Your task to perform on an android device: empty trash in the gmail app Image 0: 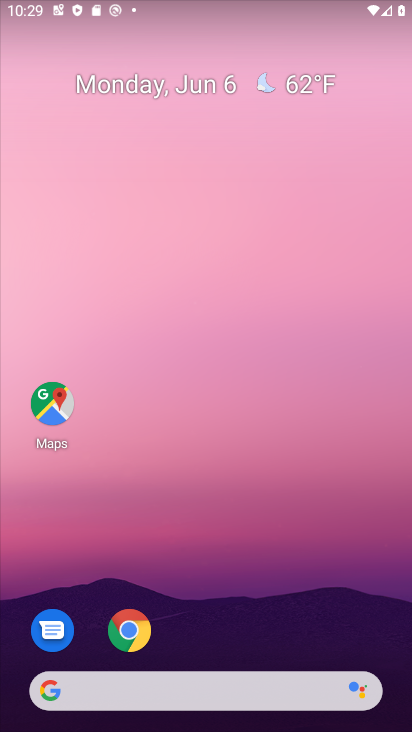
Step 0: drag from (331, 627) to (337, 170)
Your task to perform on an android device: empty trash in the gmail app Image 1: 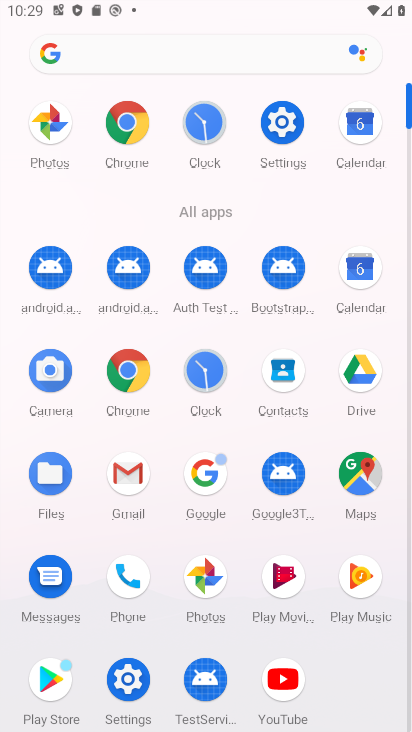
Step 1: click (143, 465)
Your task to perform on an android device: empty trash in the gmail app Image 2: 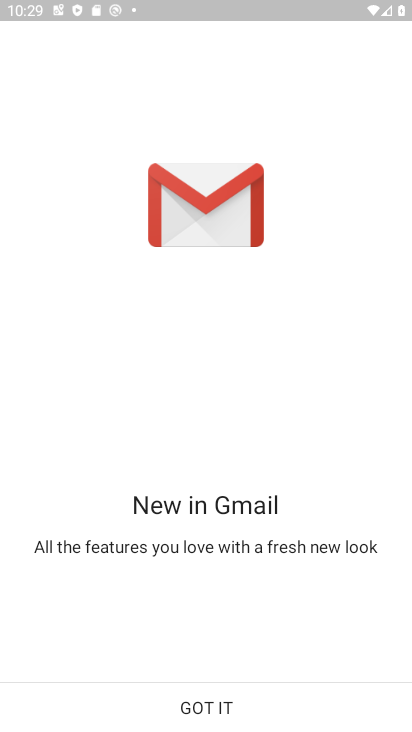
Step 2: click (224, 707)
Your task to perform on an android device: empty trash in the gmail app Image 3: 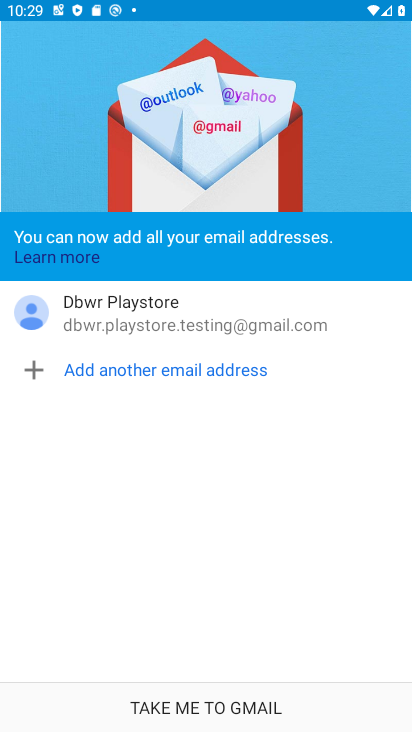
Step 3: click (225, 705)
Your task to perform on an android device: empty trash in the gmail app Image 4: 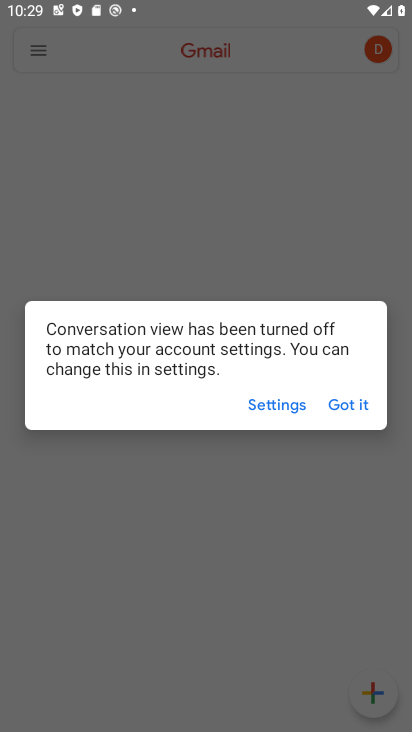
Step 4: click (360, 400)
Your task to perform on an android device: empty trash in the gmail app Image 5: 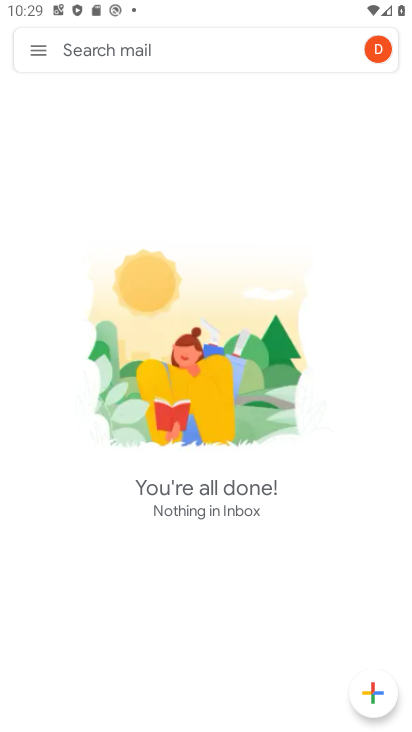
Step 5: click (44, 58)
Your task to perform on an android device: empty trash in the gmail app Image 6: 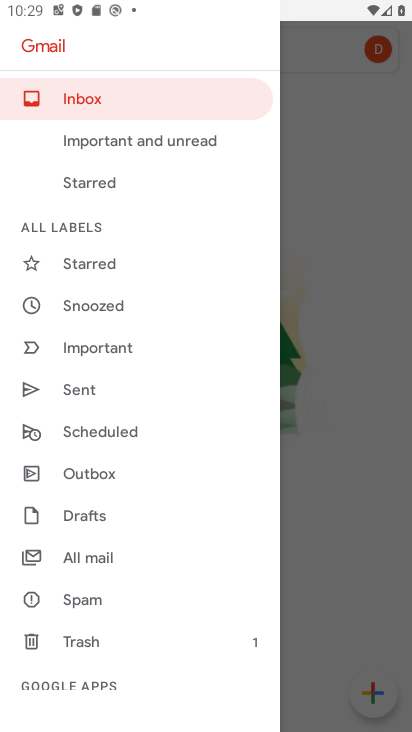
Step 6: click (115, 643)
Your task to perform on an android device: empty trash in the gmail app Image 7: 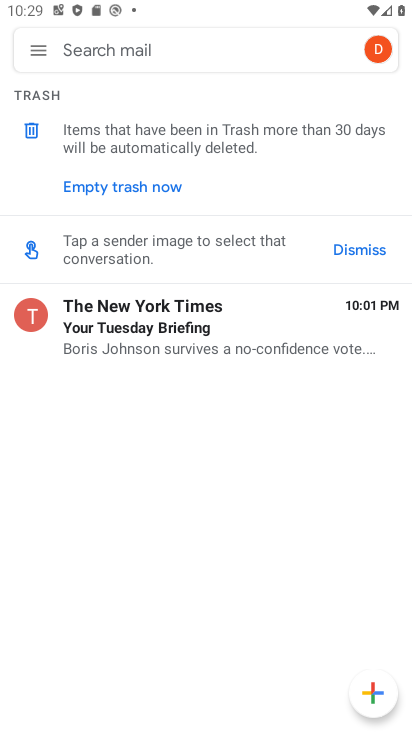
Step 7: click (152, 194)
Your task to perform on an android device: empty trash in the gmail app Image 8: 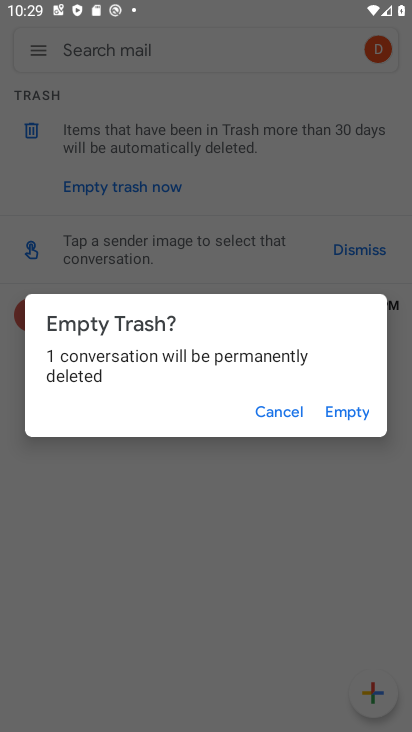
Step 8: click (355, 413)
Your task to perform on an android device: empty trash in the gmail app Image 9: 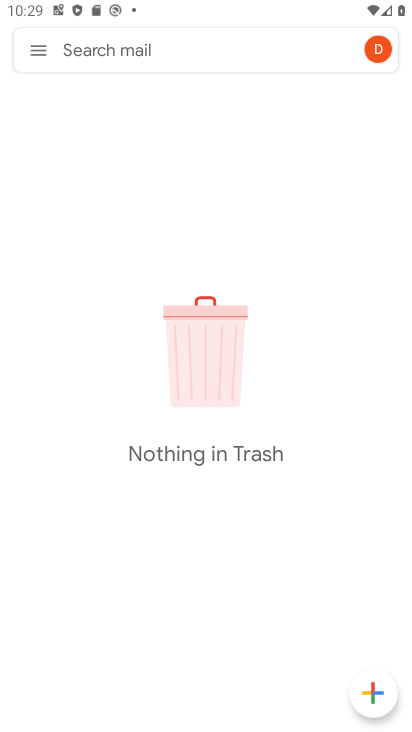
Step 9: task complete